Your task to perform on an android device: change the clock display to analog Image 0: 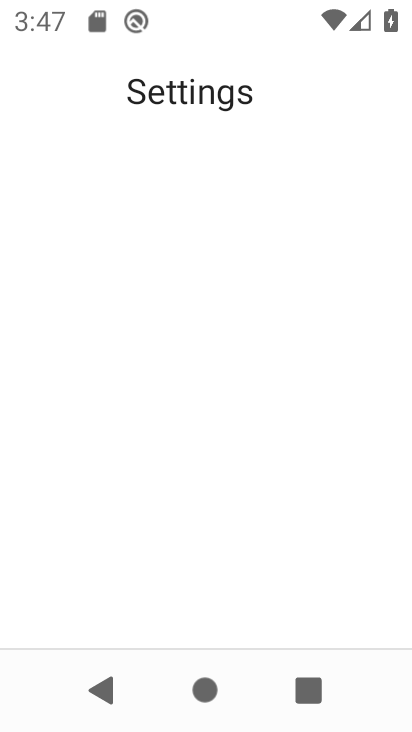
Step 0: drag from (217, 488) to (202, 396)
Your task to perform on an android device: change the clock display to analog Image 1: 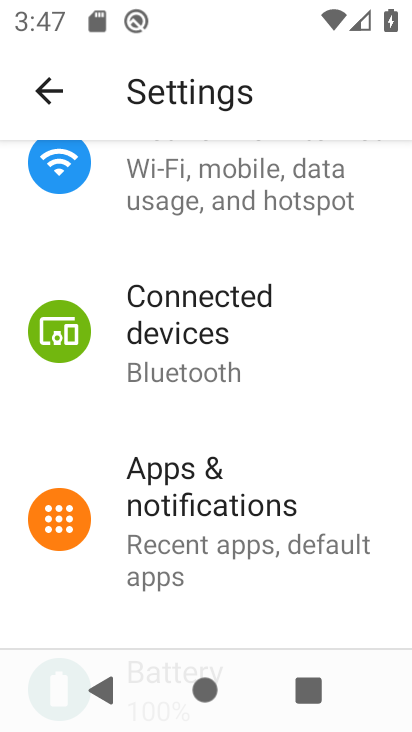
Step 1: press home button
Your task to perform on an android device: change the clock display to analog Image 2: 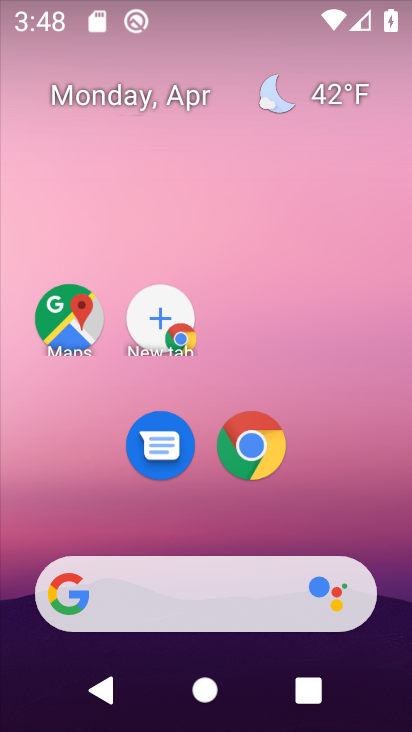
Step 2: drag from (215, 532) to (227, 188)
Your task to perform on an android device: change the clock display to analog Image 3: 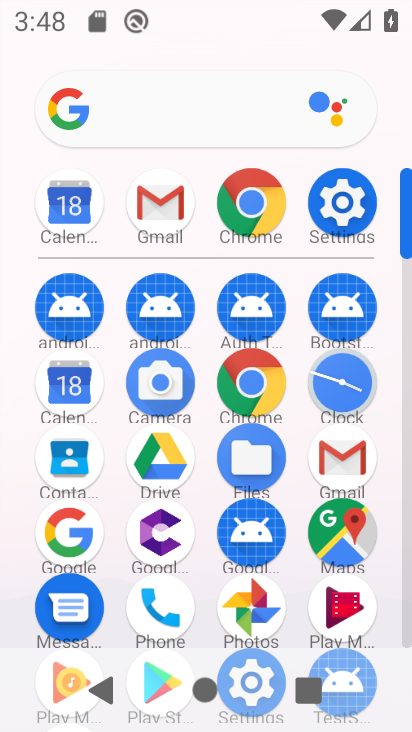
Step 3: click (340, 368)
Your task to perform on an android device: change the clock display to analog Image 4: 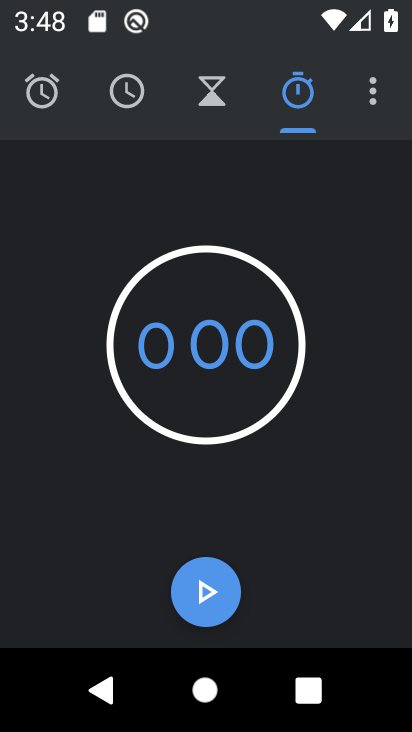
Step 4: click (372, 85)
Your task to perform on an android device: change the clock display to analog Image 5: 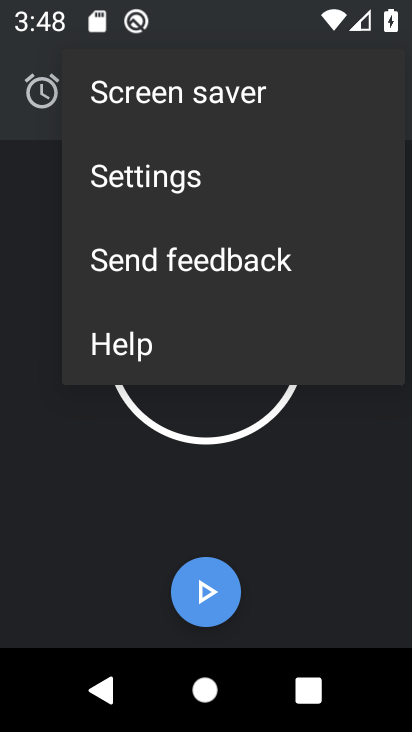
Step 5: click (210, 178)
Your task to perform on an android device: change the clock display to analog Image 6: 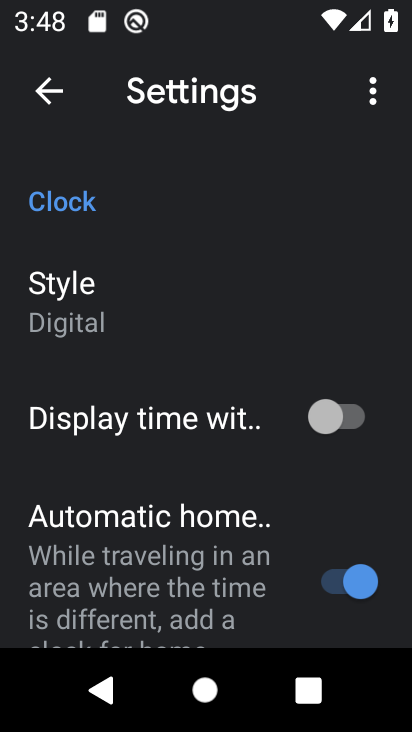
Step 6: click (121, 314)
Your task to perform on an android device: change the clock display to analog Image 7: 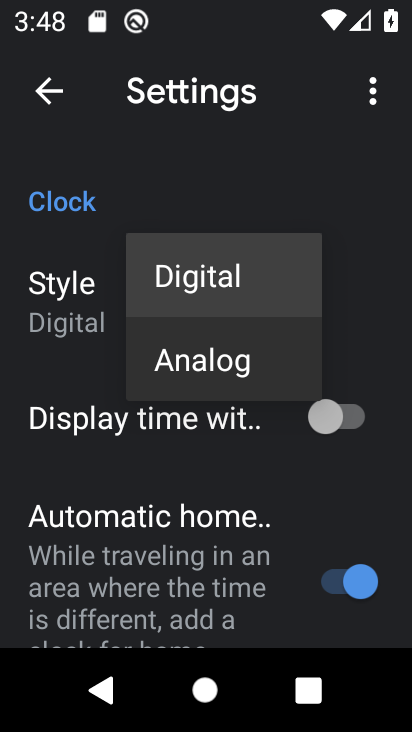
Step 7: click (227, 368)
Your task to perform on an android device: change the clock display to analog Image 8: 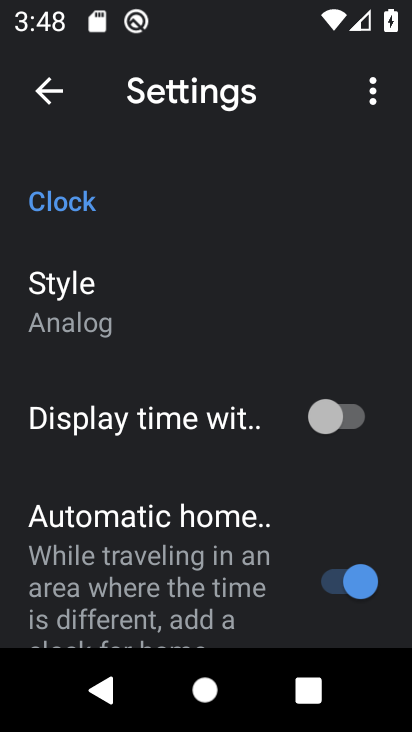
Step 8: task complete